Your task to perform on an android device: turn off smart reply in the gmail app Image 0: 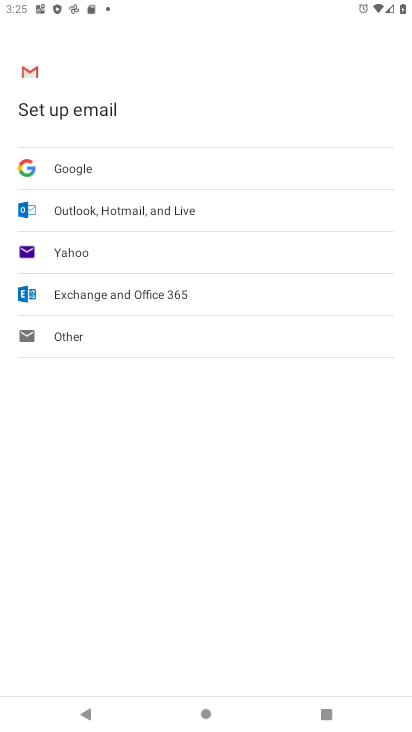
Step 0: press home button
Your task to perform on an android device: turn off smart reply in the gmail app Image 1: 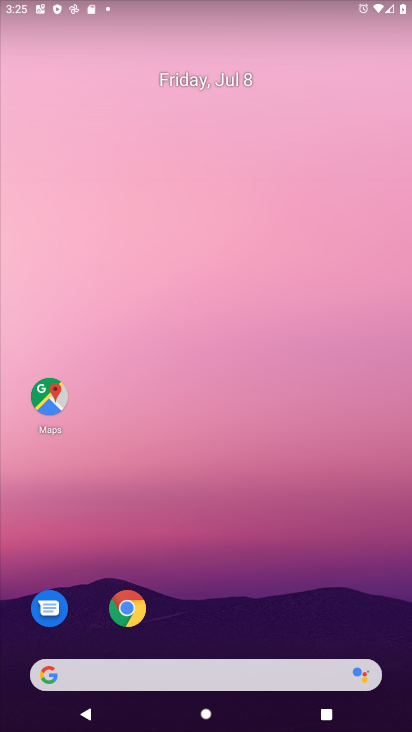
Step 1: drag from (299, 627) to (295, 0)
Your task to perform on an android device: turn off smart reply in the gmail app Image 2: 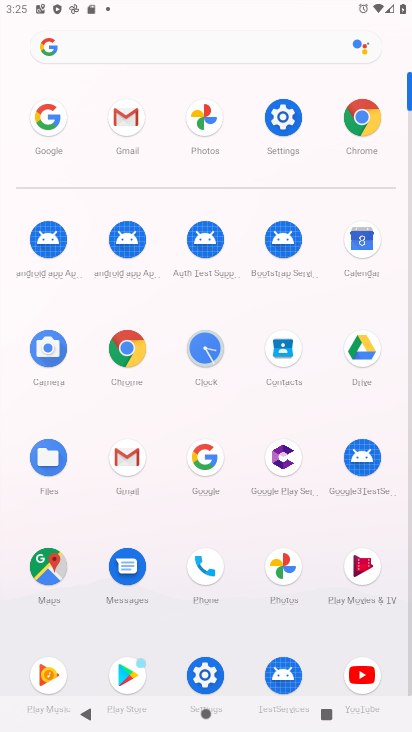
Step 2: click (140, 466)
Your task to perform on an android device: turn off smart reply in the gmail app Image 3: 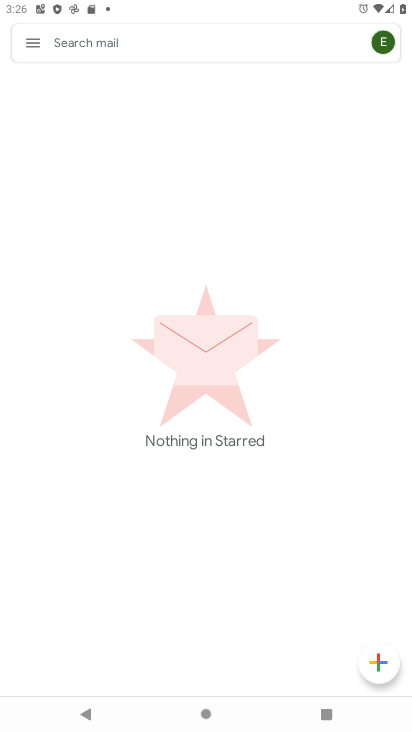
Step 3: click (34, 36)
Your task to perform on an android device: turn off smart reply in the gmail app Image 4: 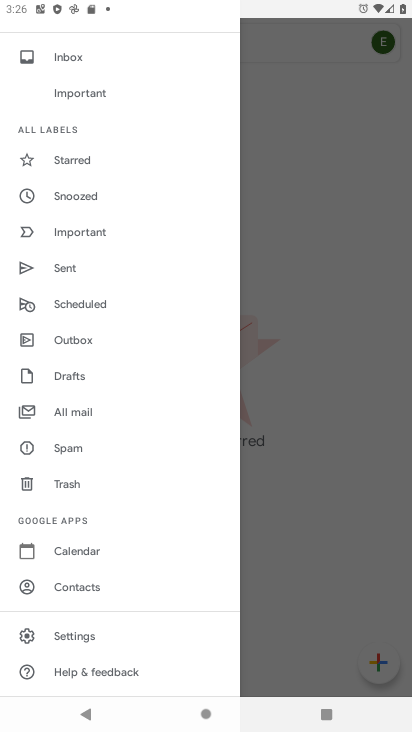
Step 4: click (66, 629)
Your task to perform on an android device: turn off smart reply in the gmail app Image 5: 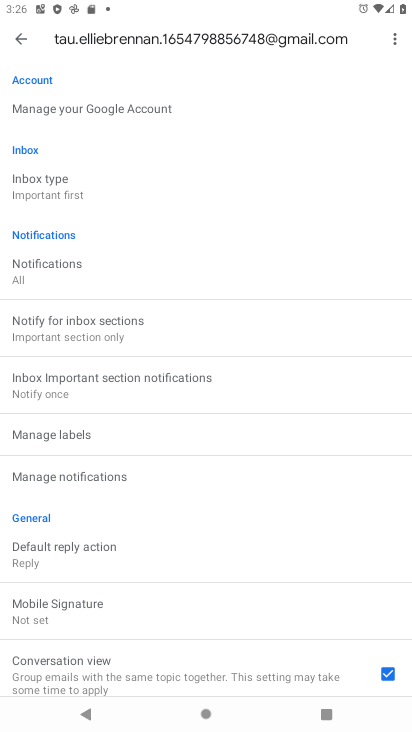
Step 5: drag from (128, 595) to (172, 140)
Your task to perform on an android device: turn off smart reply in the gmail app Image 6: 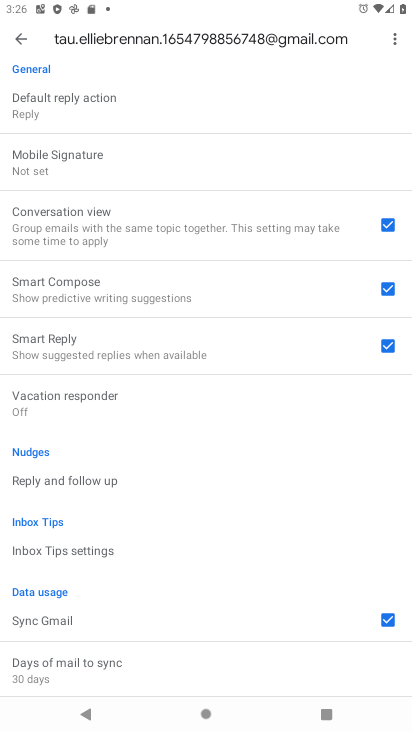
Step 6: click (376, 349)
Your task to perform on an android device: turn off smart reply in the gmail app Image 7: 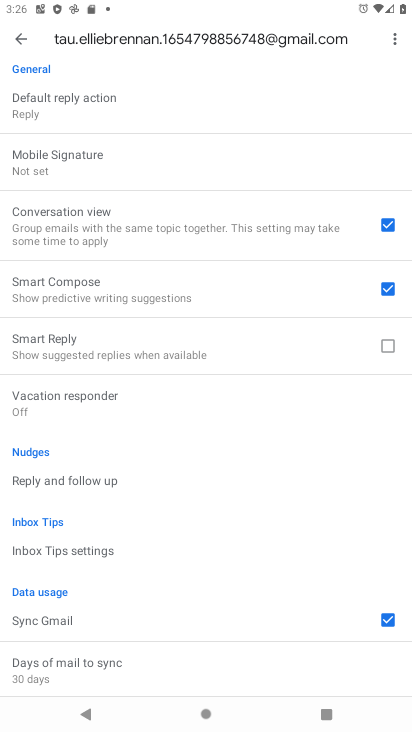
Step 7: task complete